Your task to perform on an android device: Open Yahoo.com Image 0: 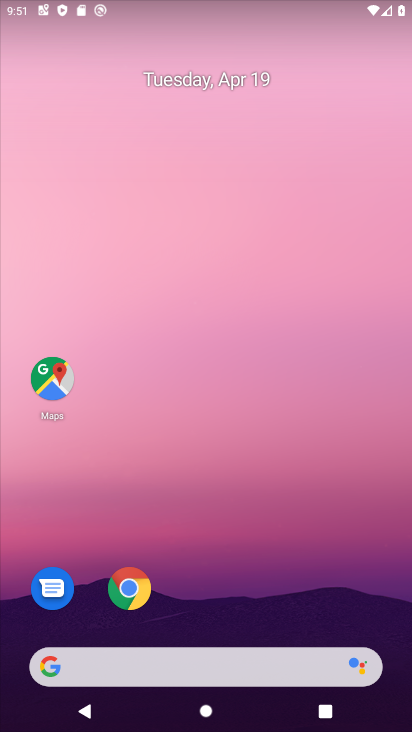
Step 0: drag from (251, 433) to (311, 76)
Your task to perform on an android device: Open Yahoo.com Image 1: 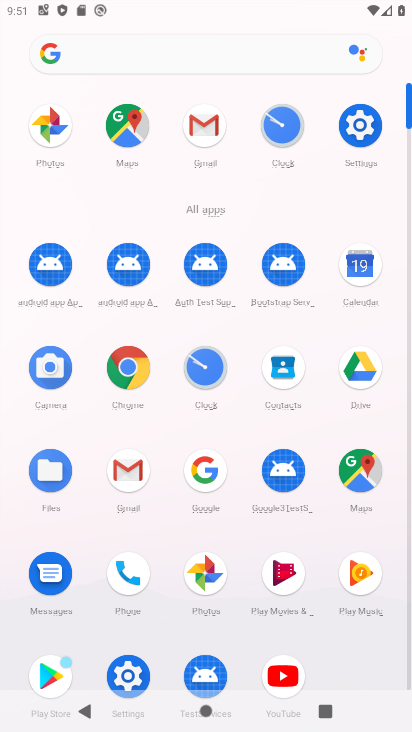
Step 1: click (127, 362)
Your task to perform on an android device: Open Yahoo.com Image 2: 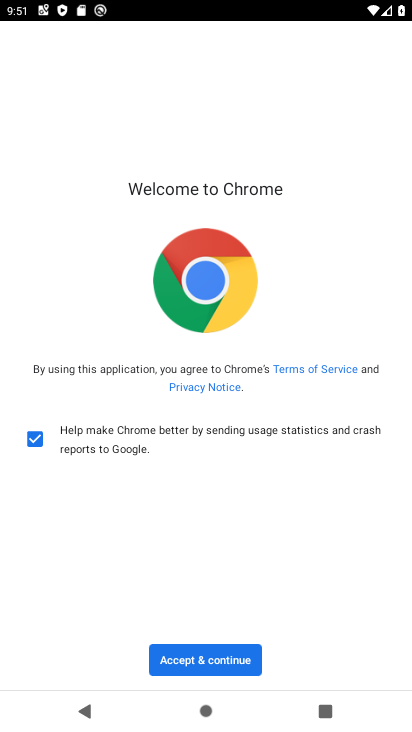
Step 2: click (190, 664)
Your task to perform on an android device: Open Yahoo.com Image 3: 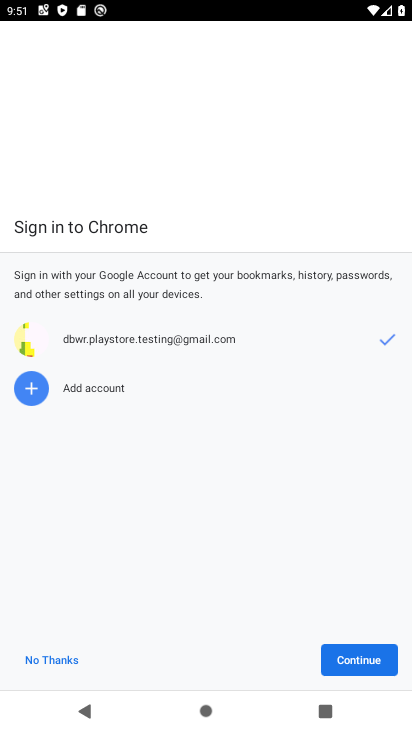
Step 3: click (362, 664)
Your task to perform on an android device: Open Yahoo.com Image 4: 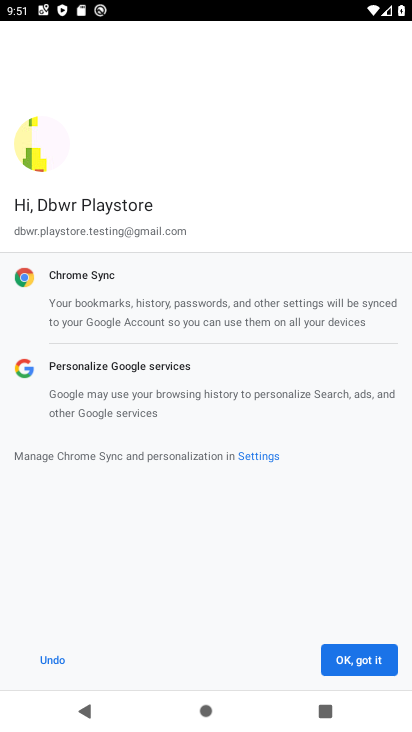
Step 4: click (362, 664)
Your task to perform on an android device: Open Yahoo.com Image 5: 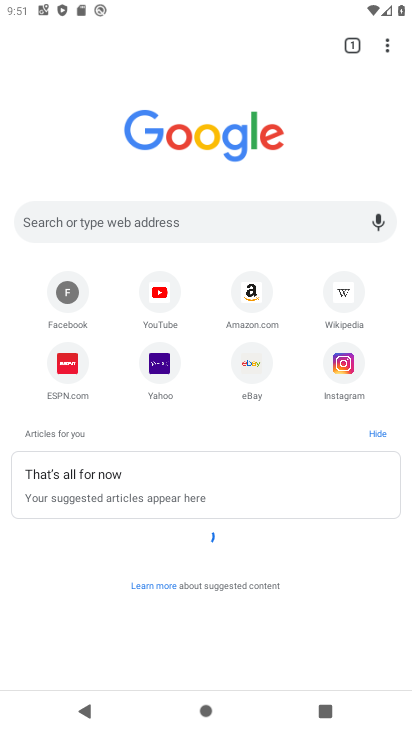
Step 5: click (122, 212)
Your task to perform on an android device: Open Yahoo.com Image 6: 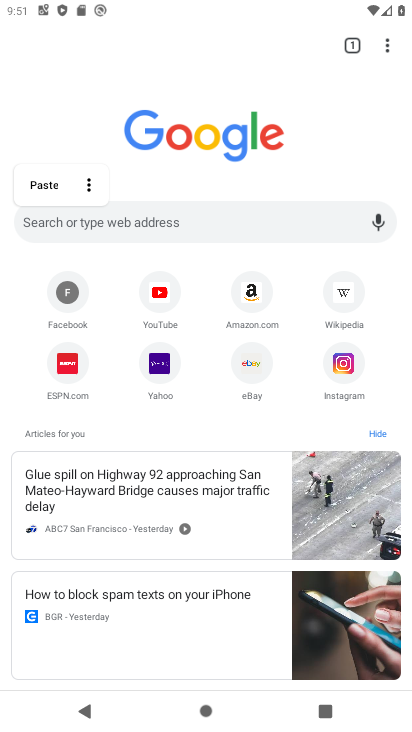
Step 6: type "yahoo.com"
Your task to perform on an android device: Open Yahoo.com Image 7: 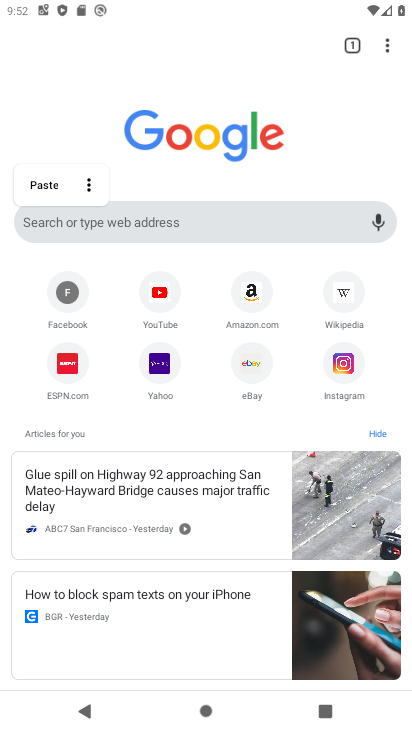
Step 7: click (109, 223)
Your task to perform on an android device: Open Yahoo.com Image 8: 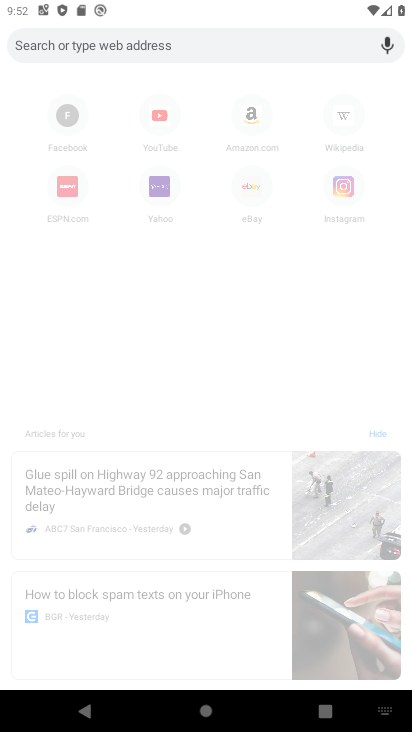
Step 8: type "yahoo.com"
Your task to perform on an android device: Open Yahoo.com Image 9: 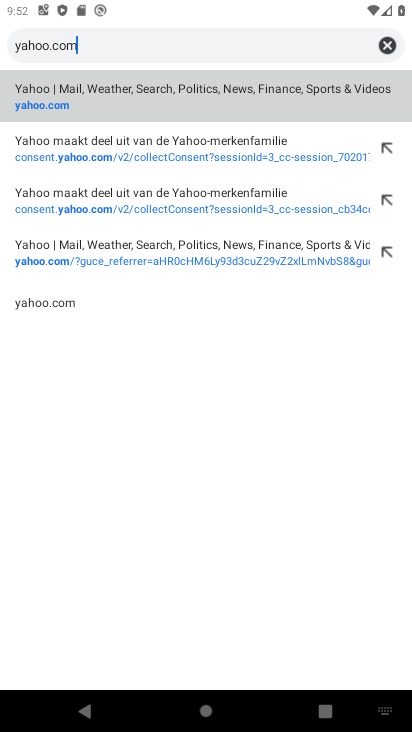
Step 9: click (137, 103)
Your task to perform on an android device: Open Yahoo.com Image 10: 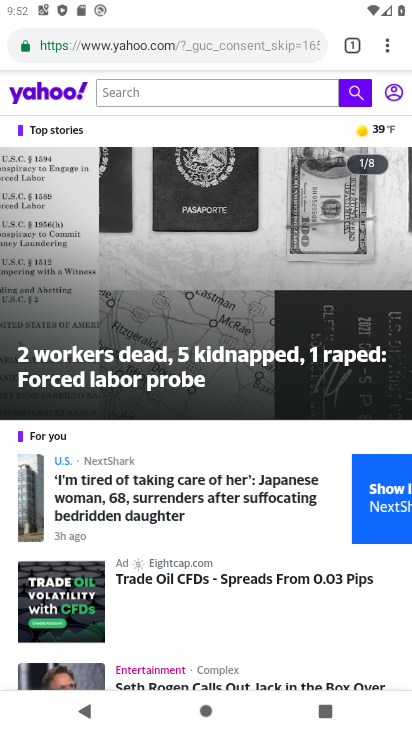
Step 10: task complete